Your task to perform on an android device: Open network settings Image 0: 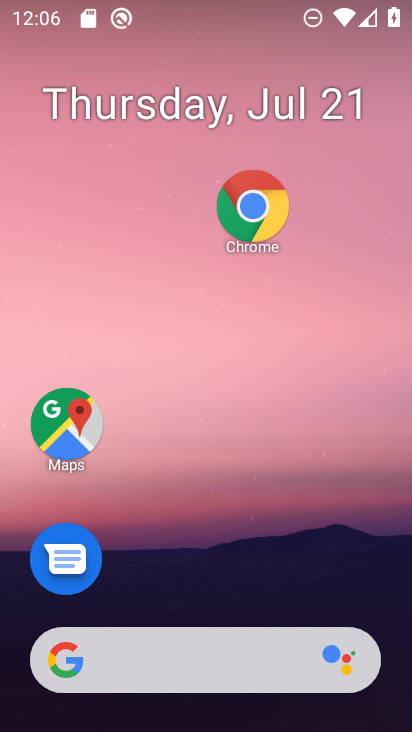
Step 0: drag from (171, 596) to (189, 108)
Your task to perform on an android device: Open network settings Image 1: 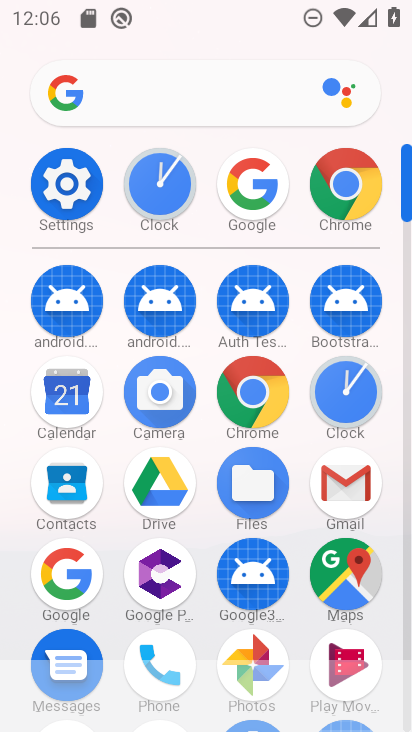
Step 1: click (88, 204)
Your task to perform on an android device: Open network settings Image 2: 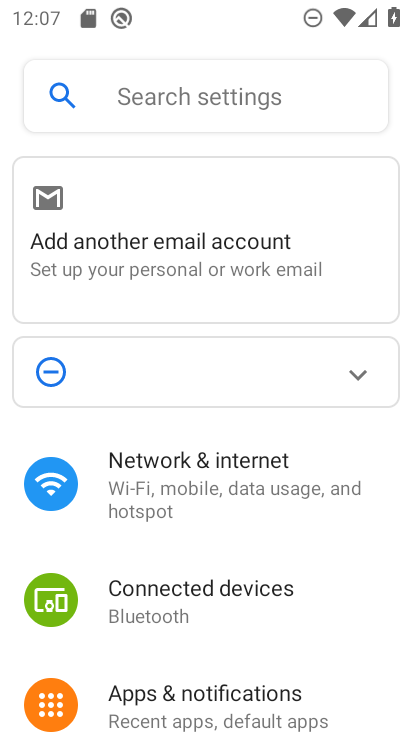
Step 2: click (205, 486)
Your task to perform on an android device: Open network settings Image 3: 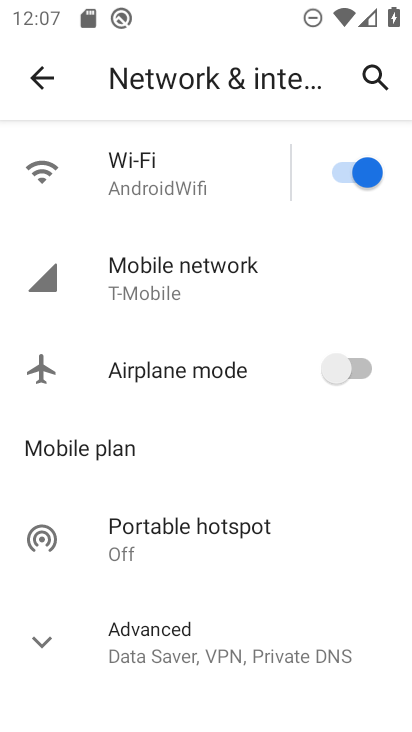
Step 3: drag from (227, 431) to (260, 161)
Your task to perform on an android device: Open network settings Image 4: 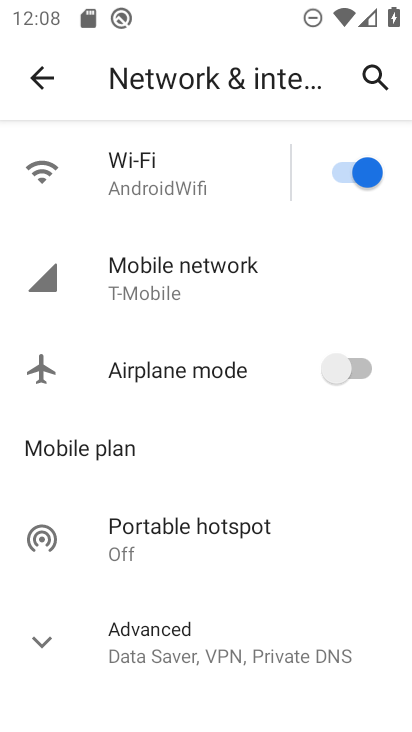
Step 4: click (282, 283)
Your task to perform on an android device: Open network settings Image 5: 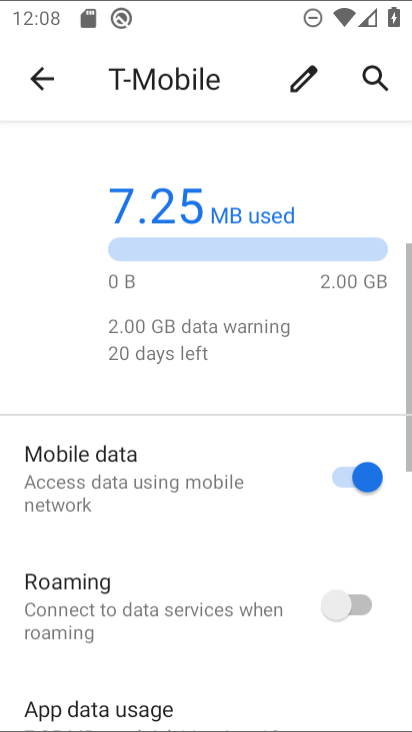
Step 5: task complete